Your task to perform on an android device: Is it going to rain this weekend? Image 0: 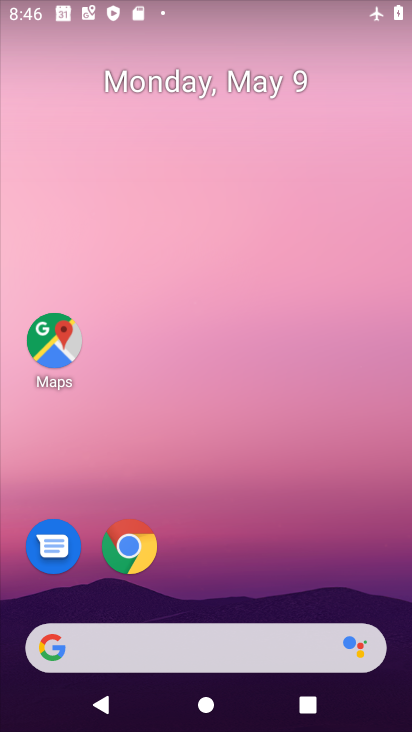
Step 0: click (258, 651)
Your task to perform on an android device: Is it going to rain this weekend? Image 1: 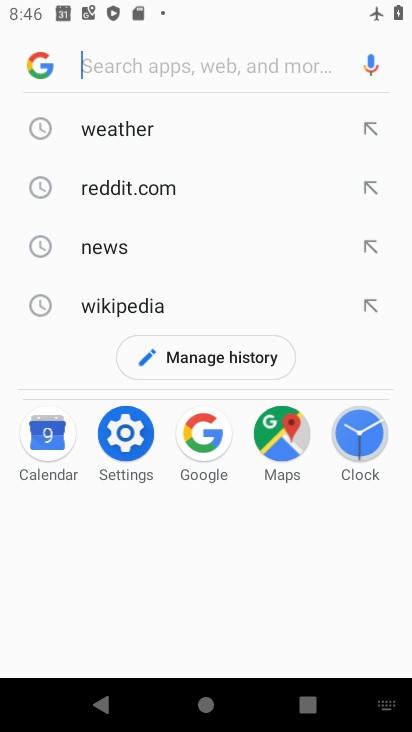
Step 1: type "Is it going to rain this weekend?"
Your task to perform on an android device: Is it going to rain this weekend? Image 2: 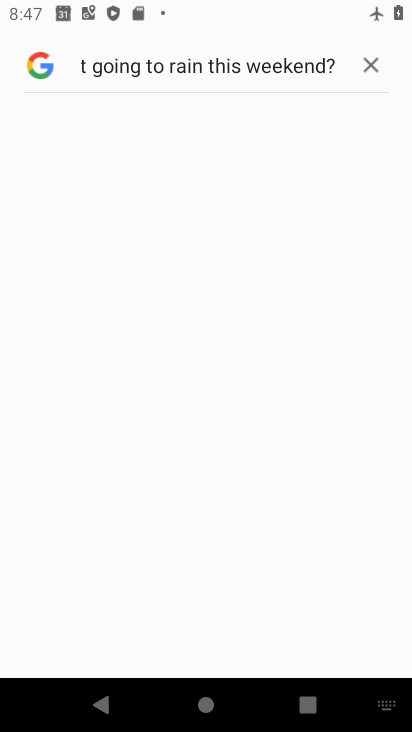
Step 2: task complete